Your task to perform on an android device: Show the shopping cart on amazon.com. Add macbook to the cart on amazon.com, then select checkout. Image 0: 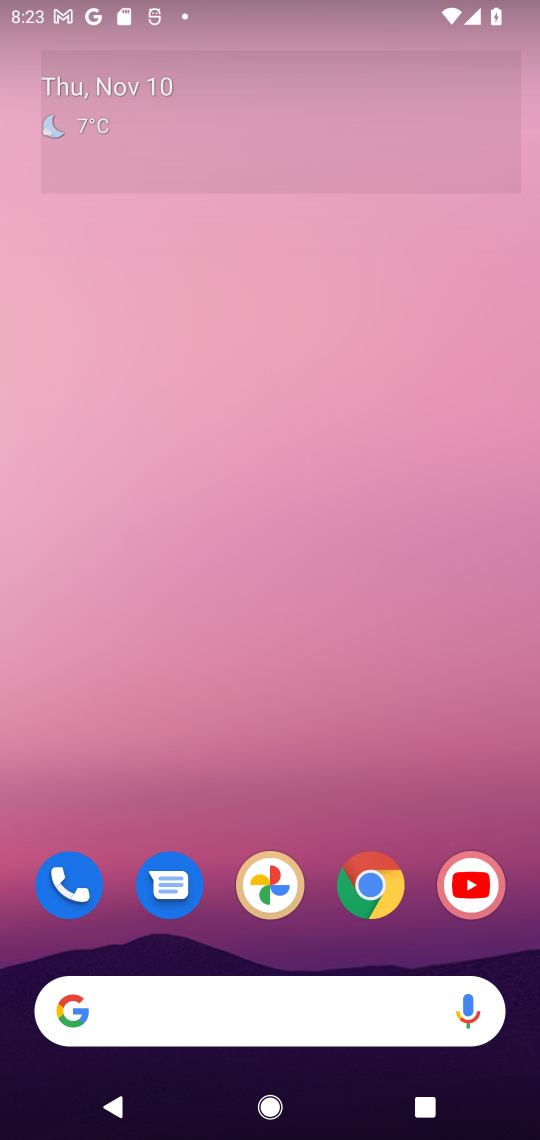
Step 0: click (380, 889)
Your task to perform on an android device: Show the shopping cart on amazon.com. Add macbook to the cart on amazon.com, then select checkout. Image 1: 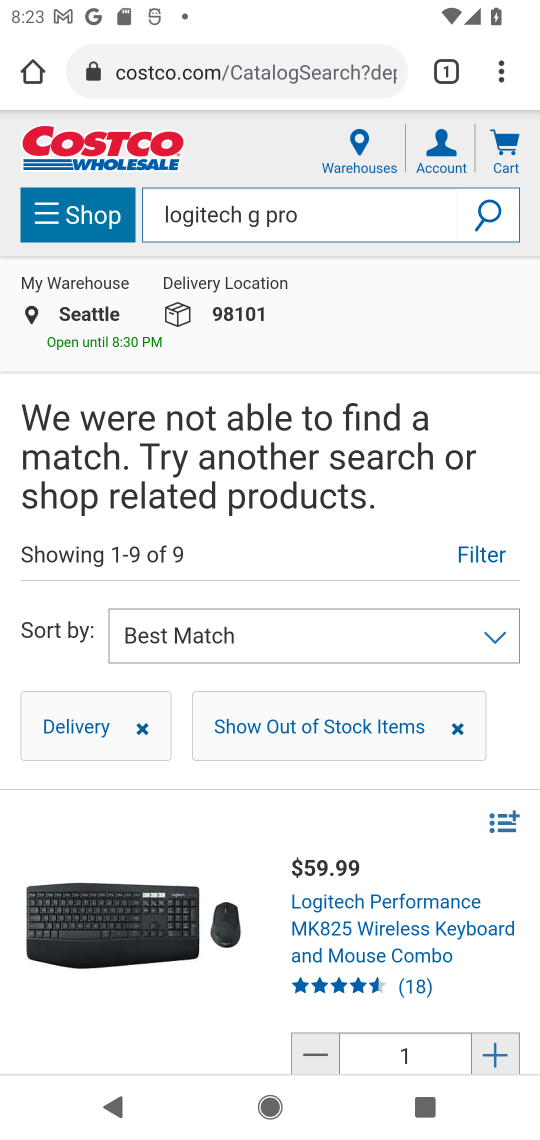
Step 1: click (142, 62)
Your task to perform on an android device: Show the shopping cart on amazon.com. Add macbook to the cart on amazon.com, then select checkout. Image 2: 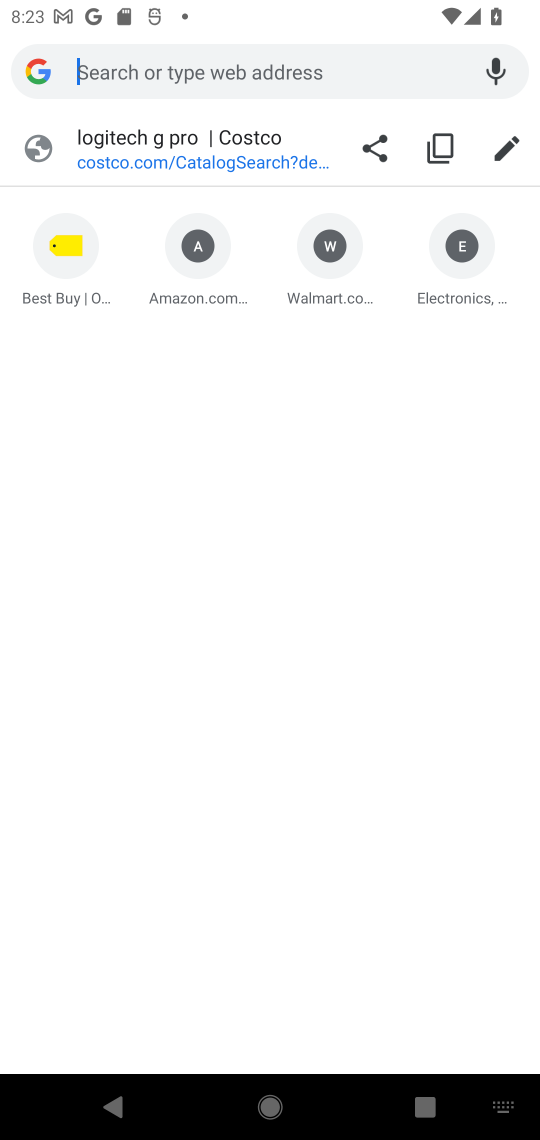
Step 2: click (196, 242)
Your task to perform on an android device: Show the shopping cart on amazon.com. Add macbook to the cart on amazon.com, then select checkout. Image 3: 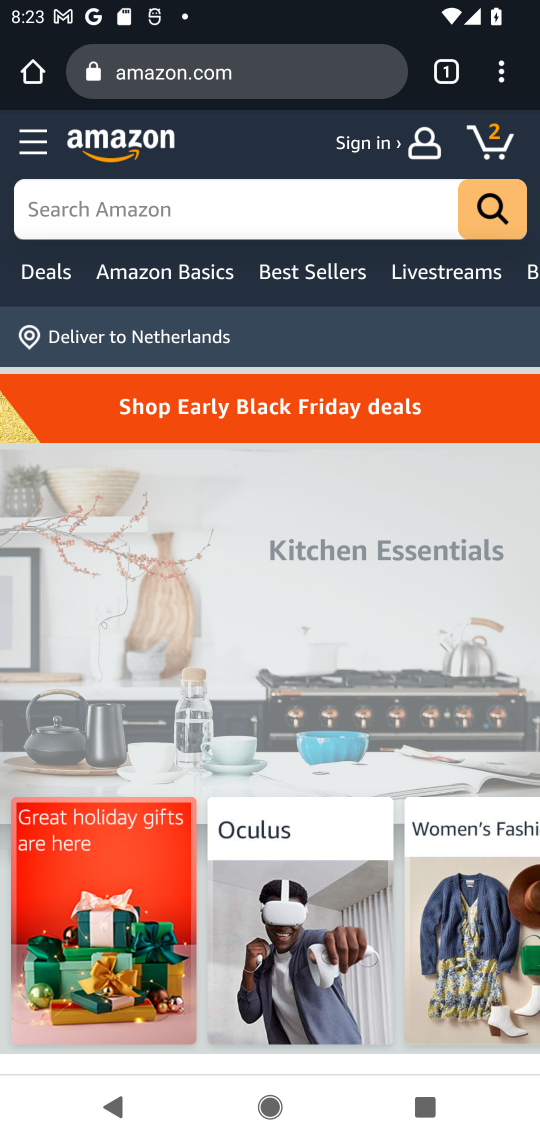
Step 3: click (485, 142)
Your task to perform on an android device: Show the shopping cart on amazon.com. Add macbook to the cart on amazon.com, then select checkout. Image 4: 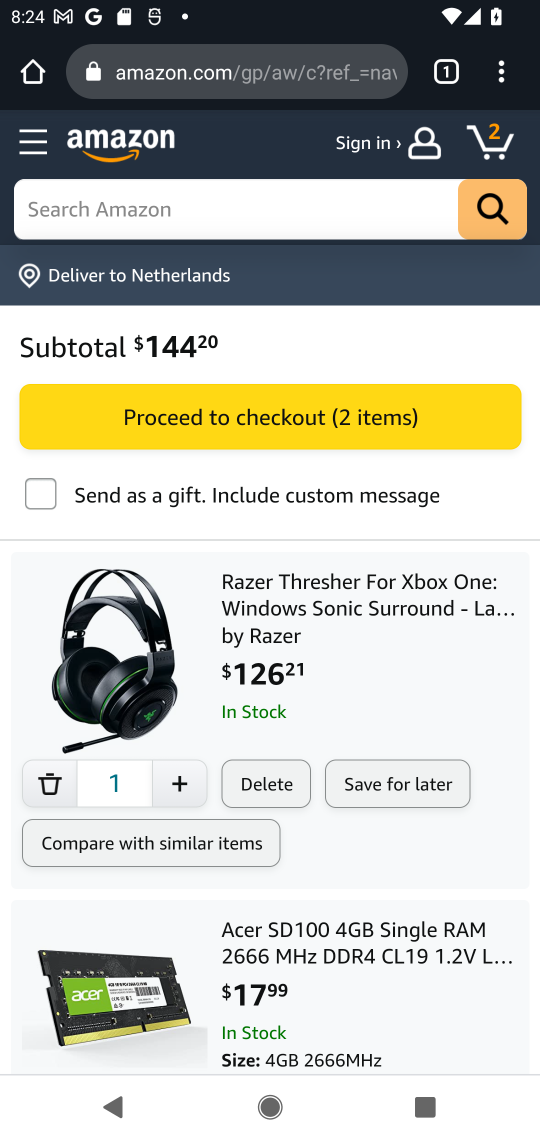
Step 4: click (202, 219)
Your task to perform on an android device: Show the shopping cart on amazon.com. Add macbook to the cart on amazon.com, then select checkout. Image 5: 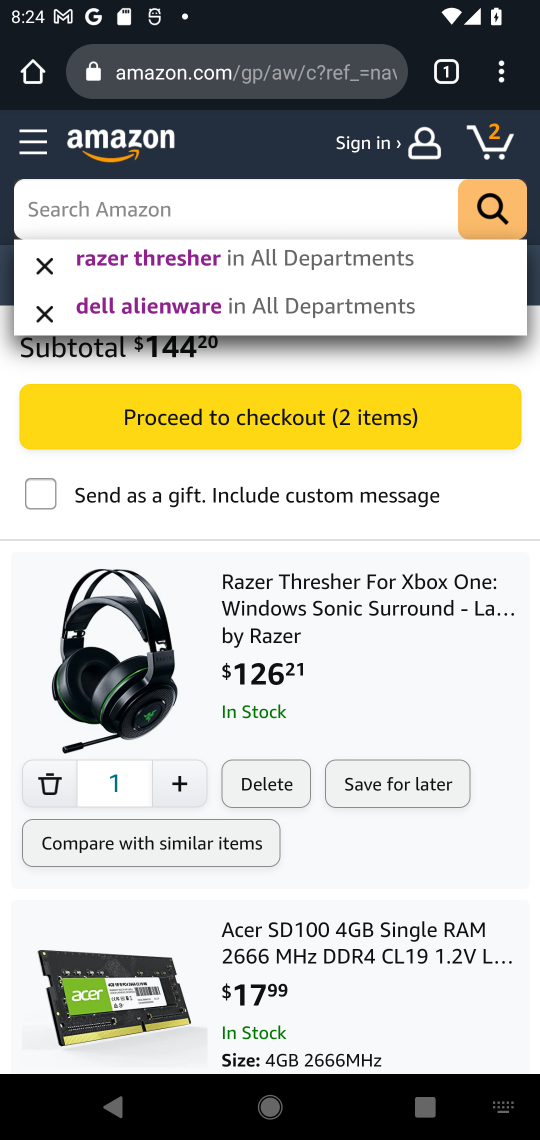
Step 5: type "macbook"
Your task to perform on an android device: Show the shopping cart on amazon.com. Add macbook to the cart on amazon.com, then select checkout. Image 6: 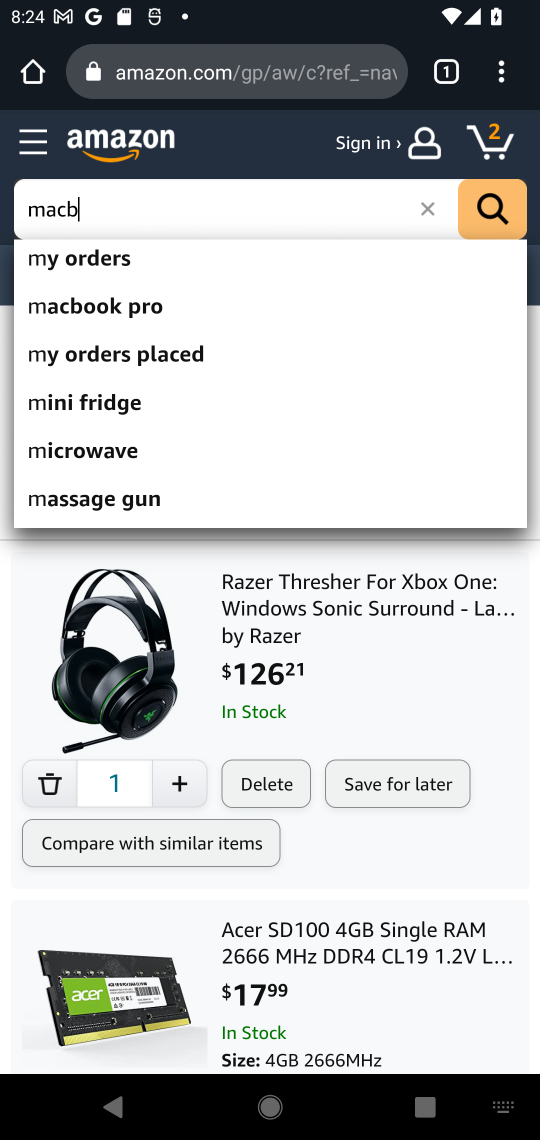
Step 6: press enter
Your task to perform on an android device: Show the shopping cart on amazon.com. Add macbook to the cart on amazon.com, then select checkout. Image 7: 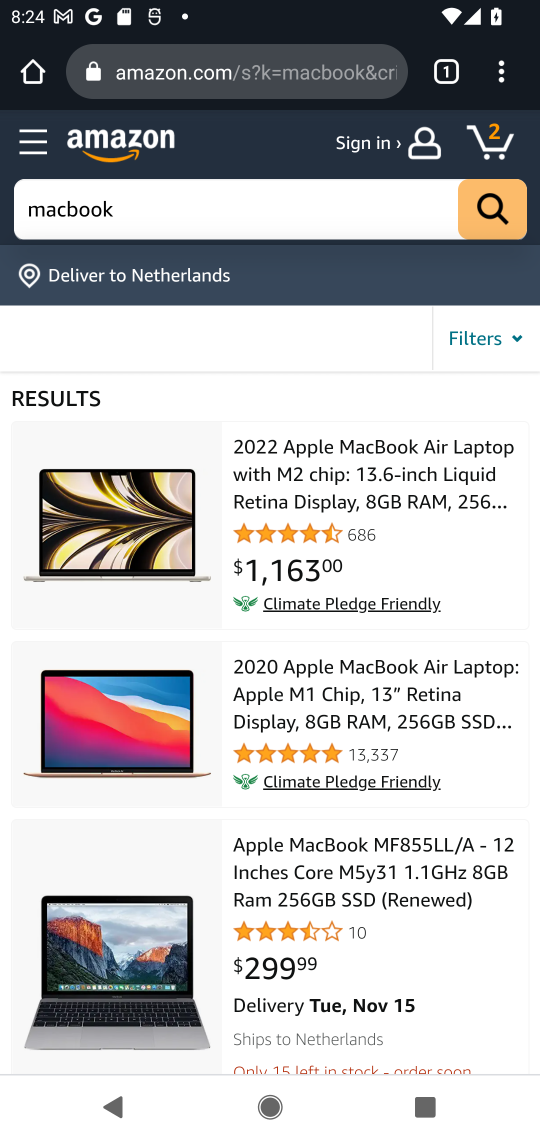
Step 7: drag from (392, 914) to (424, 624)
Your task to perform on an android device: Show the shopping cart on amazon.com. Add macbook to the cart on amazon.com, then select checkout. Image 8: 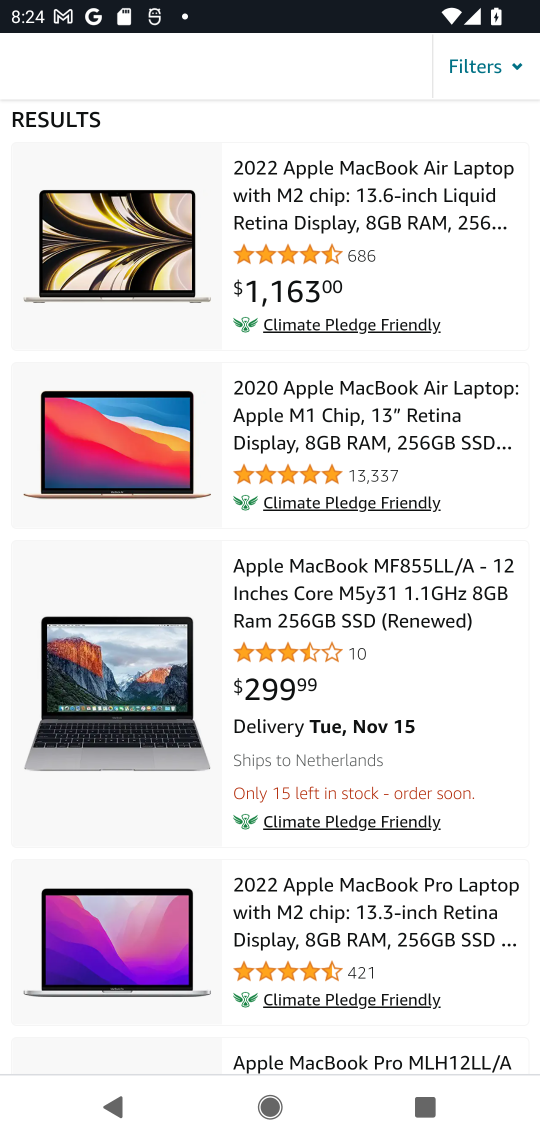
Step 8: drag from (388, 859) to (397, 599)
Your task to perform on an android device: Show the shopping cart on amazon.com. Add macbook to the cart on amazon.com, then select checkout. Image 9: 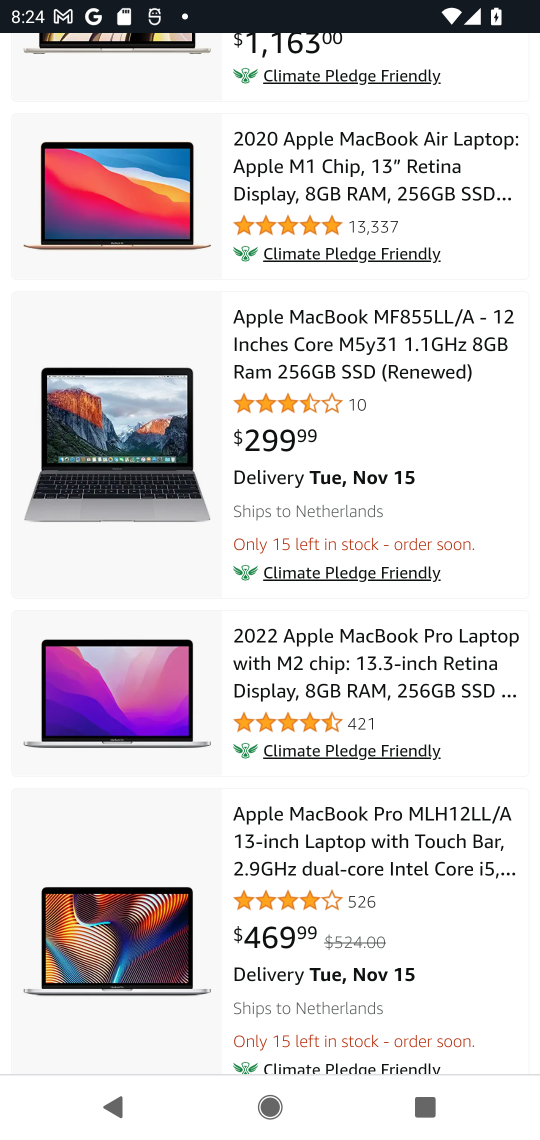
Step 9: drag from (429, 900) to (433, 633)
Your task to perform on an android device: Show the shopping cart on amazon.com. Add macbook to the cart on amazon.com, then select checkout. Image 10: 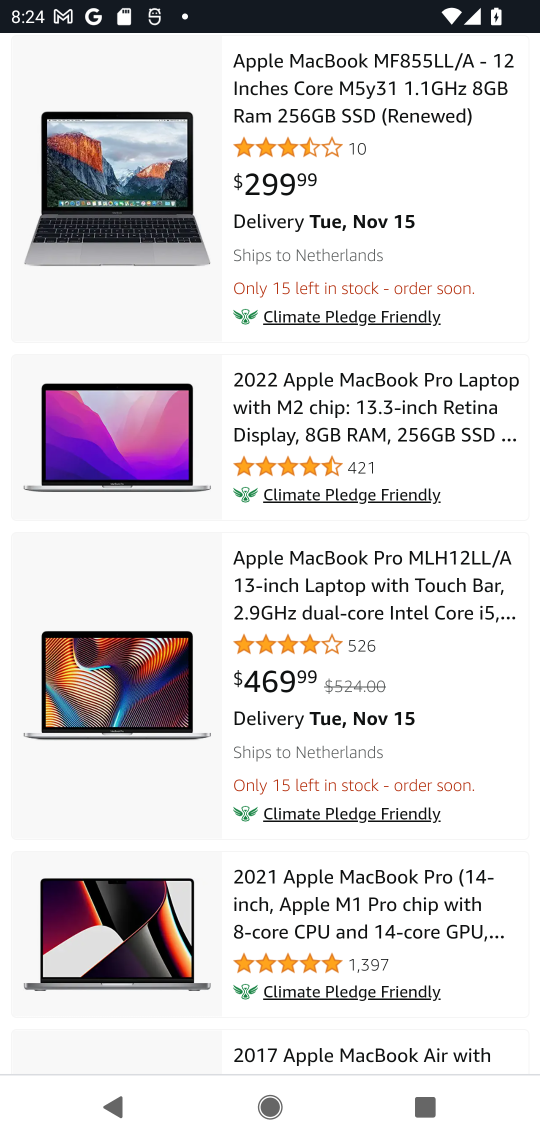
Step 10: drag from (251, 795) to (270, 407)
Your task to perform on an android device: Show the shopping cart on amazon.com. Add macbook to the cart on amazon.com, then select checkout. Image 11: 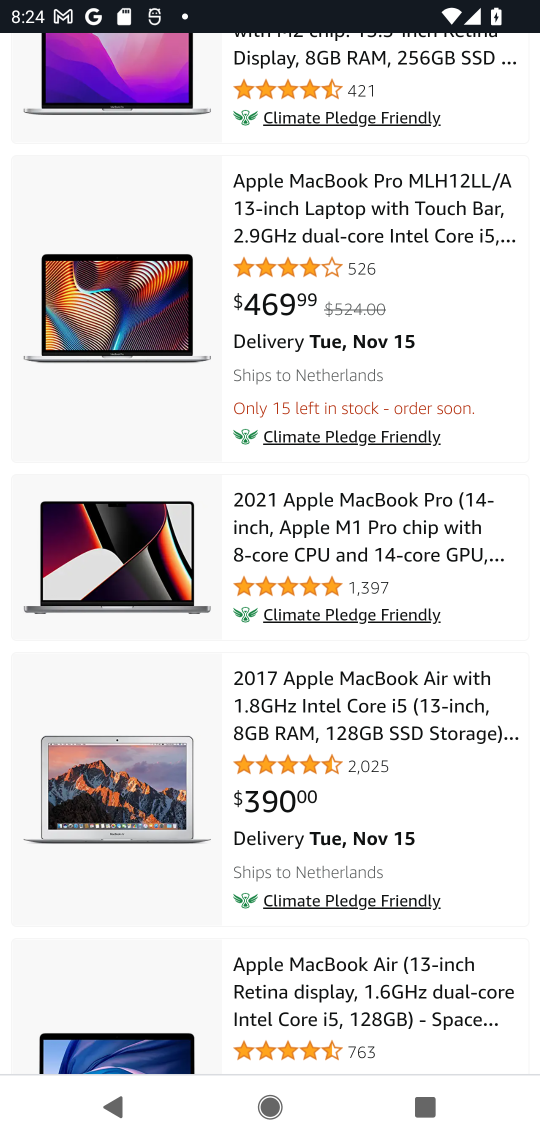
Step 11: drag from (371, 720) to (421, 383)
Your task to perform on an android device: Show the shopping cart on amazon.com. Add macbook to the cart on amazon.com, then select checkout. Image 12: 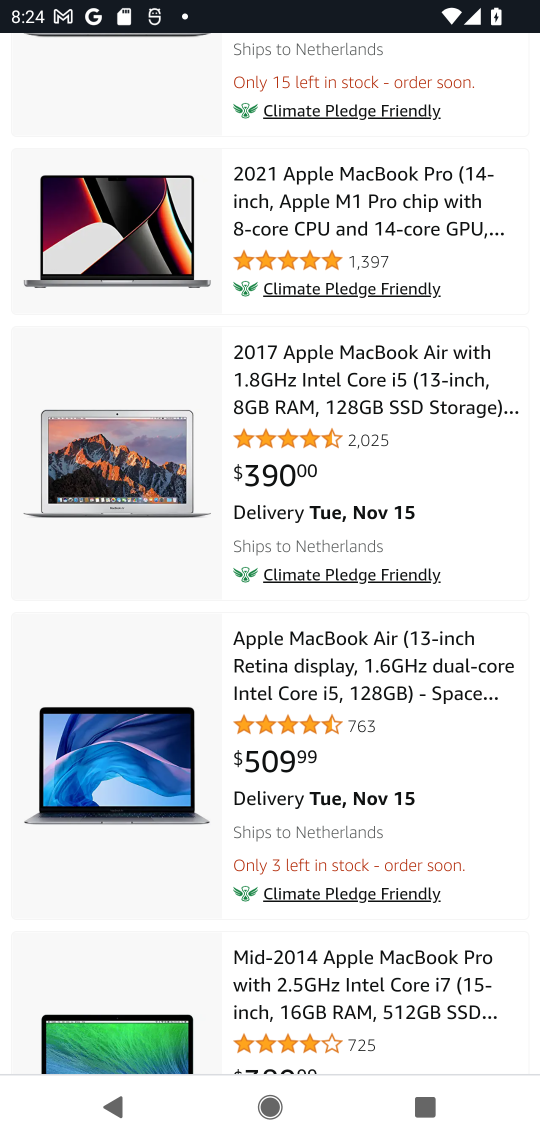
Step 12: drag from (365, 921) to (448, 328)
Your task to perform on an android device: Show the shopping cart on amazon.com. Add macbook to the cart on amazon.com, then select checkout. Image 13: 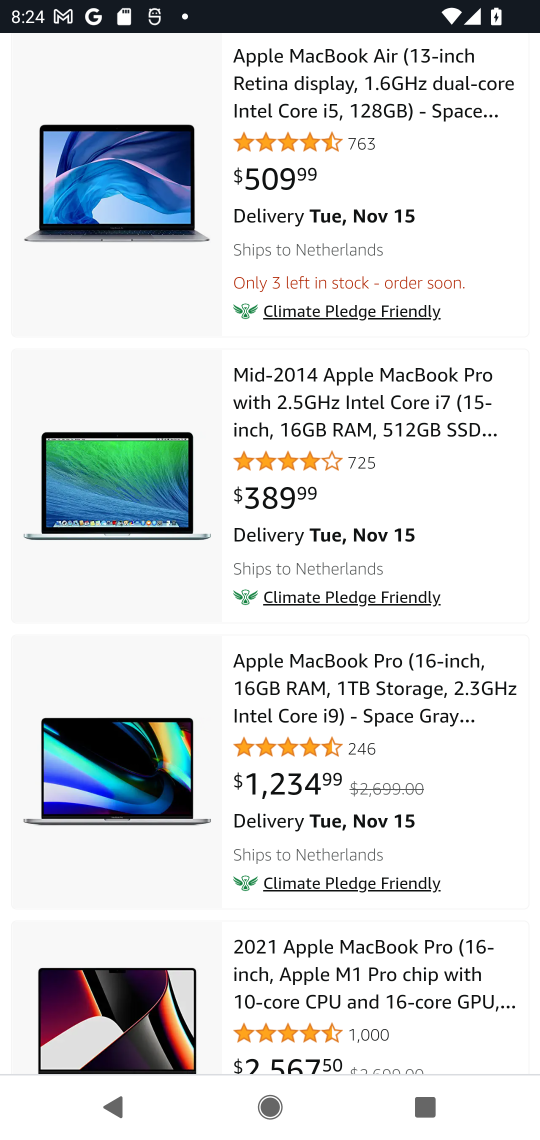
Step 13: click (105, 798)
Your task to perform on an android device: Show the shopping cart on amazon.com. Add macbook to the cart on amazon.com, then select checkout. Image 14: 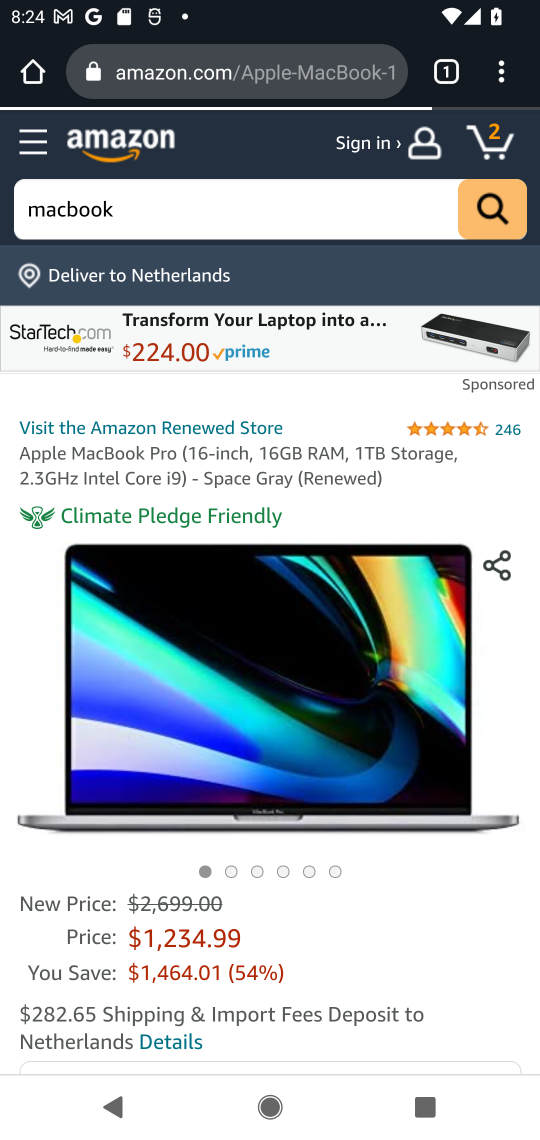
Step 14: task complete